Your task to perform on an android device: Open the map Image 0: 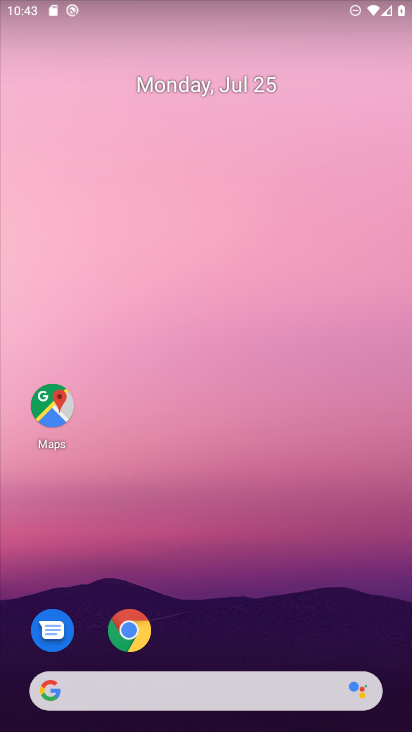
Step 0: drag from (343, 606) to (256, 72)
Your task to perform on an android device: Open the map Image 1: 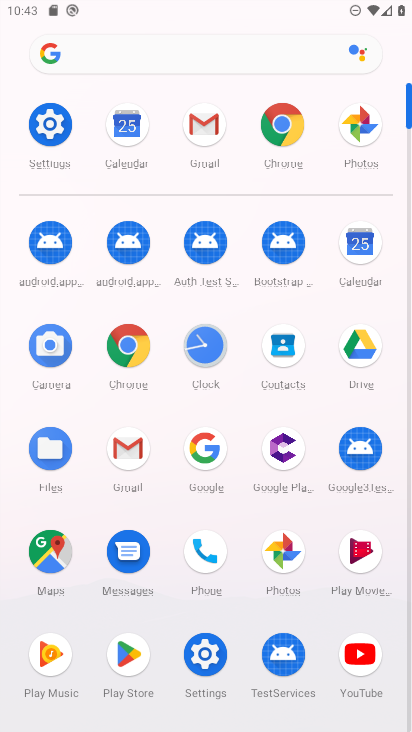
Step 1: click (51, 539)
Your task to perform on an android device: Open the map Image 2: 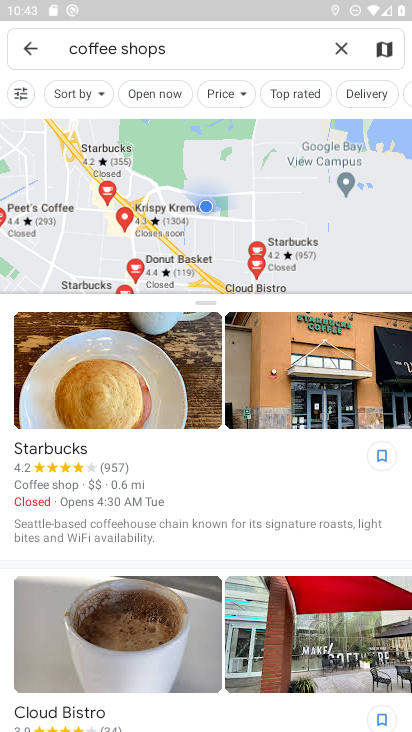
Step 2: task complete